Your task to perform on an android device: What is the recent news? Image 0: 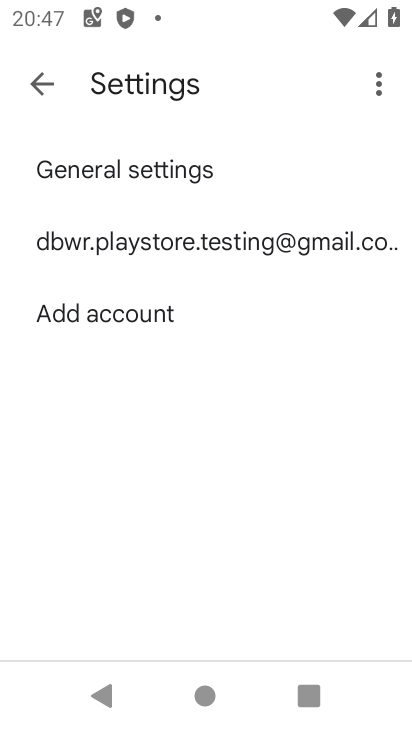
Step 0: press home button
Your task to perform on an android device: What is the recent news? Image 1: 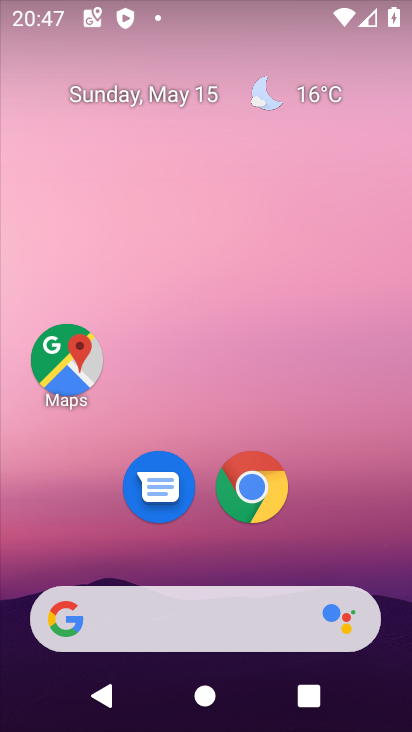
Step 1: drag from (2, 243) to (365, 263)
Your task to perform on an android device: What is the recent news? Image 2: 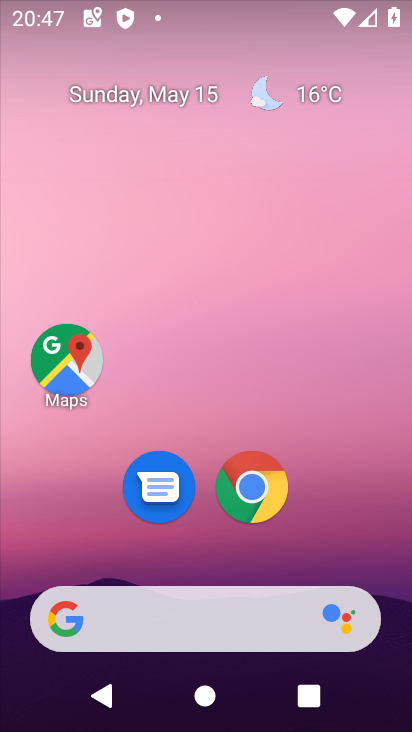
Step 2: drag from (23, 236) to (371, 244)
Your task to perform on an android device: What is the recent news? Image 3: 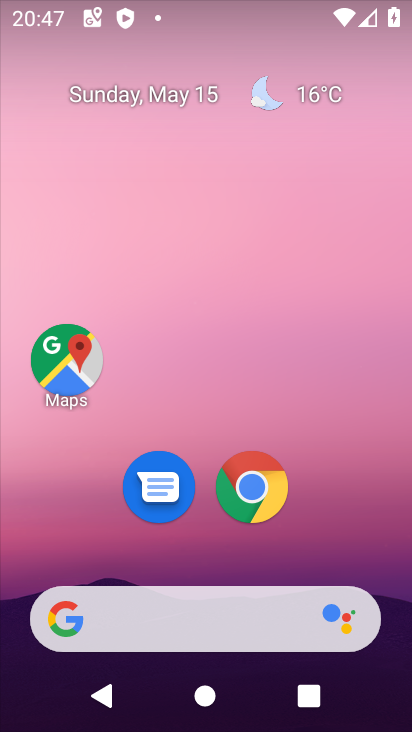
Step 3: drag from (4, 221) to (201, 245)
Your task to perform on an android device: What is the recent news? Image 4: 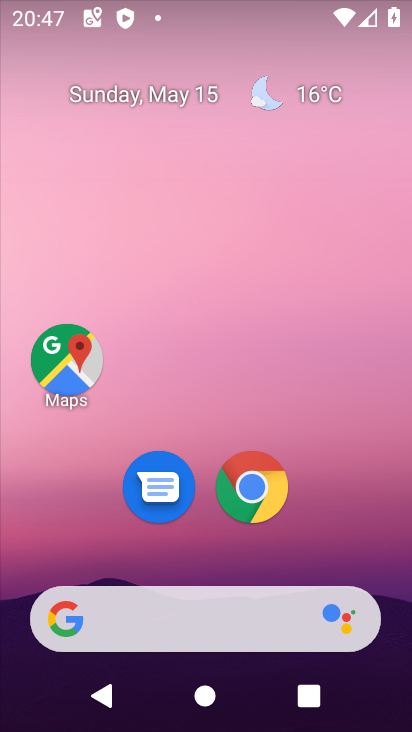
Step 4: click (355, 261)
Your task to perform on an android device: What is the recent news? Image 5: 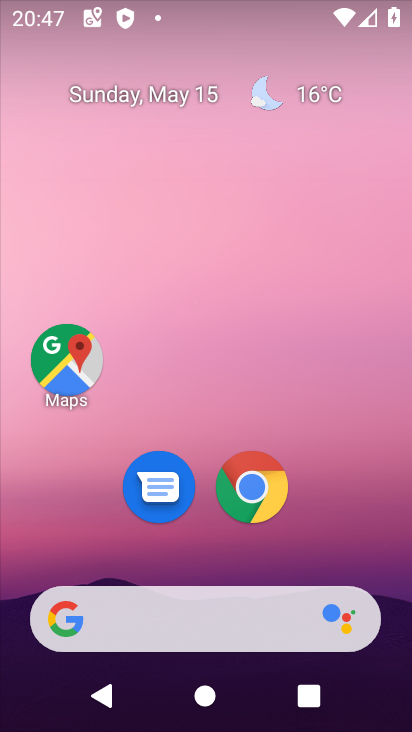
Step 5: drag from (386, 644) to (365, 209)
Your task to perform on an android device: What is the recent news? Image 6: 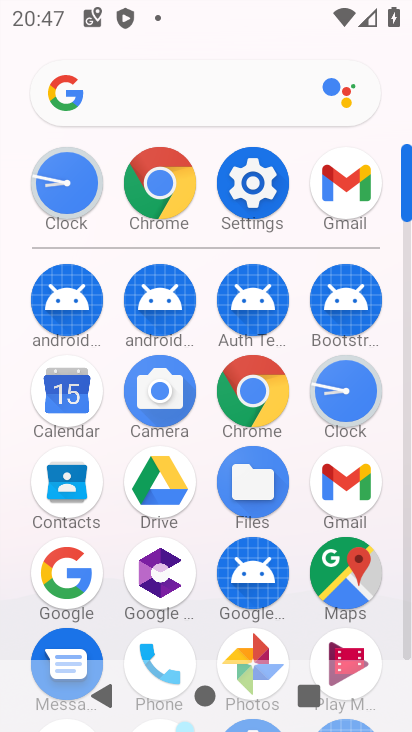
Step 6: click (68, 566)
Your task to perform on an android device: What is the recent news? Image 7: 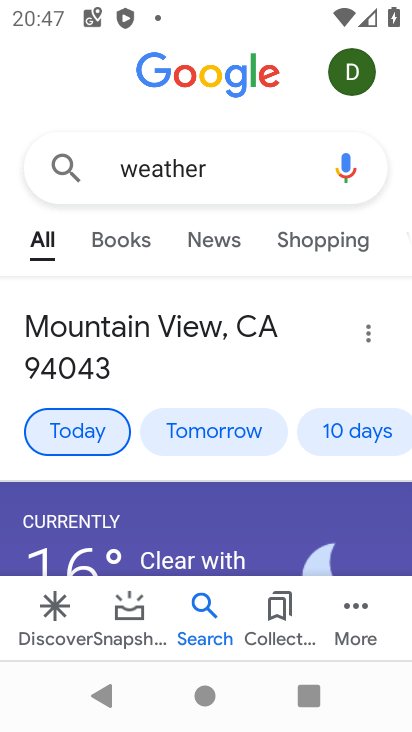
Step 7: task complete